Your task to perform on an android device: allow cookies in the chrome app Image 0: 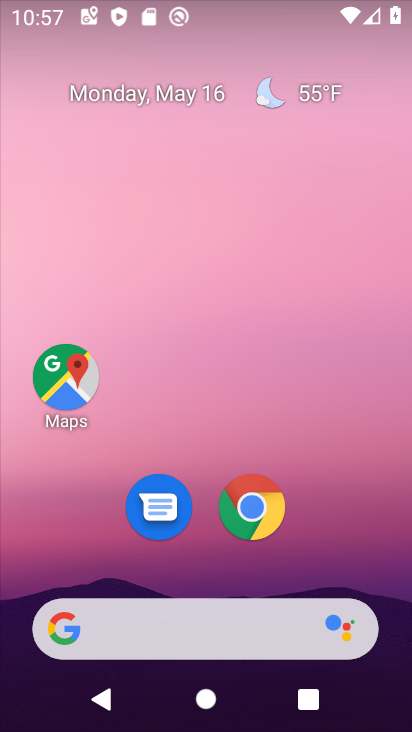
Step 0: click (264, 509)
Your task to perform on an android device: allow cookies in the chrome app Image 1: 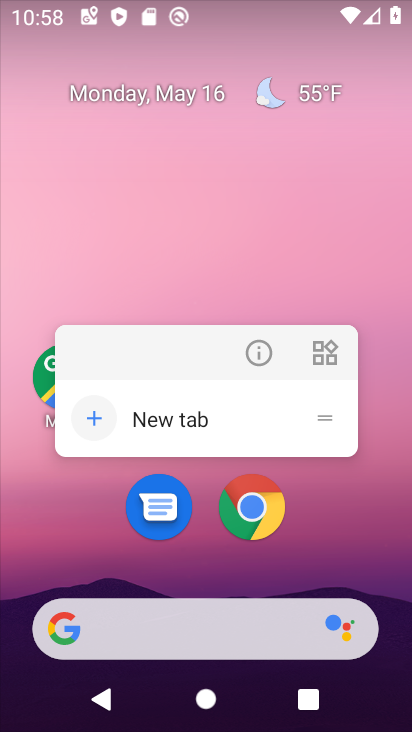
Step 1: click (249, 557)
Your task to perform on an android device: allow cookies in the chrome app Image 2: 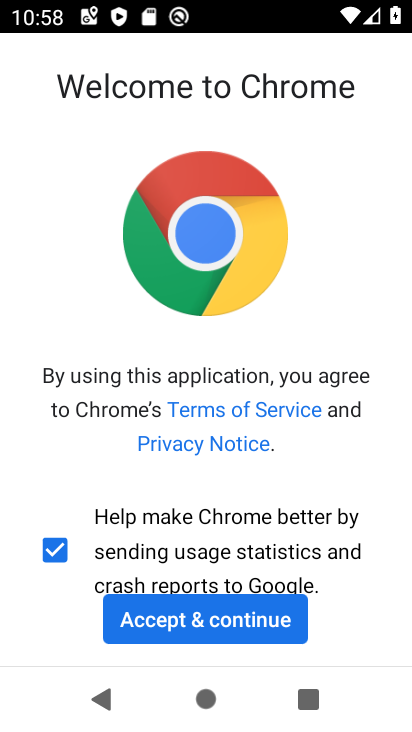
Step 2: click (249, 599)
Your task to perform on an android device: allow cookies in the chrome app Image 3: 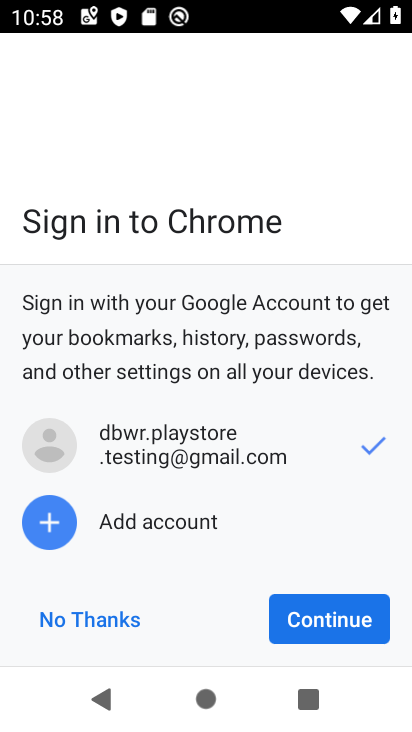
Step 3: click (300, 630)
Your task to perform on an android device: allow cookies in the chrome app Image 4: 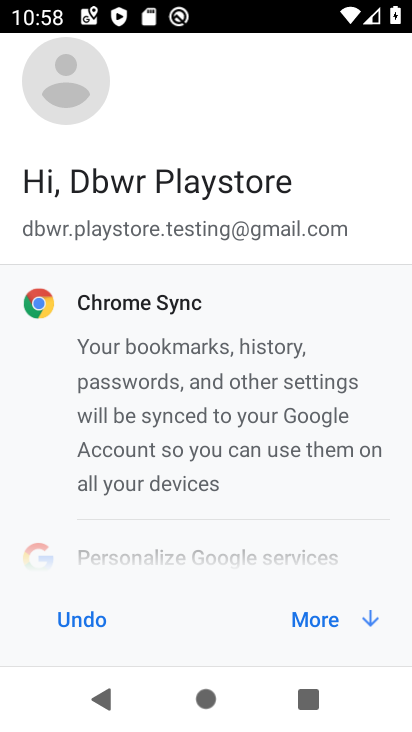
Step 4: click (320, 626)
Your task to perform on an android device: allow cookies in the chrome app Image 5: 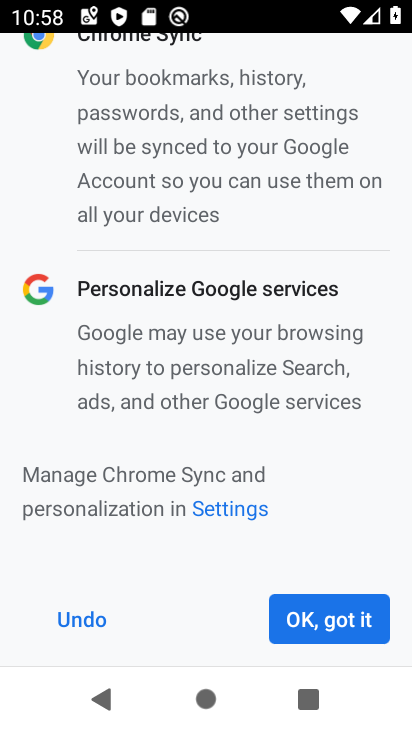
Step 5: click (319, 626)
Your task to perform on an android device: allow cookies in the chrome app Image 6: 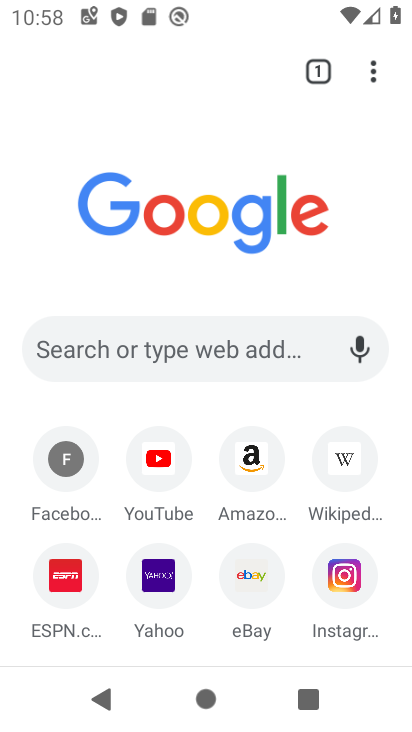
Step 6: drag from (372, 73) to (243, 517)
Your task to perform on an android device: allow cookies in the chrome app Image 7: 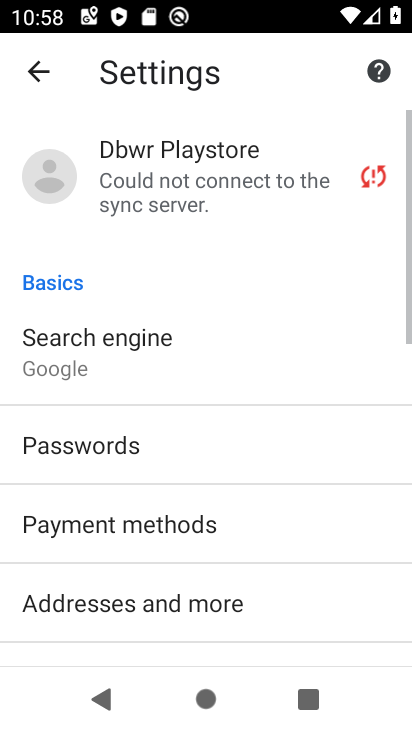
Step 7: drag from (255, 578) to (250, 248)
Your task to perform on an android device: allow cookies in the chrome app Image 8: 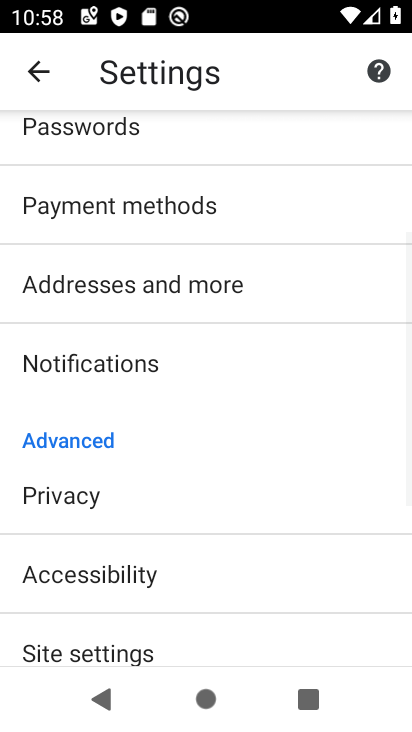
Step 8: drag from (277, 642) to (305, 276)
Your task to perform on an android device: allow cookies in the chrome app Image 9: 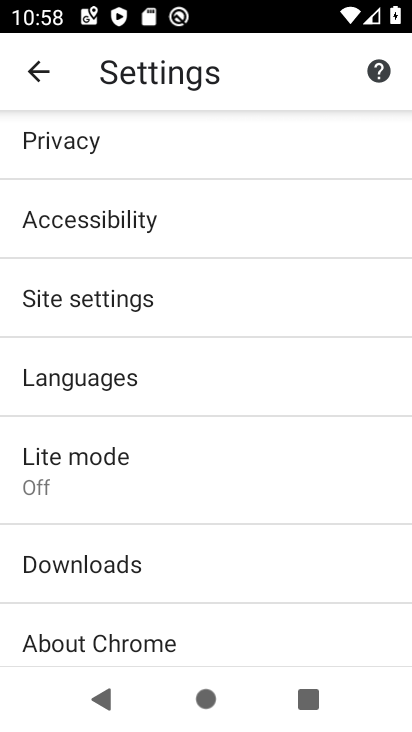
Step 9: click (122, 297)
Your task to perform on an android device: allow cookies in the chrome app Image 10: 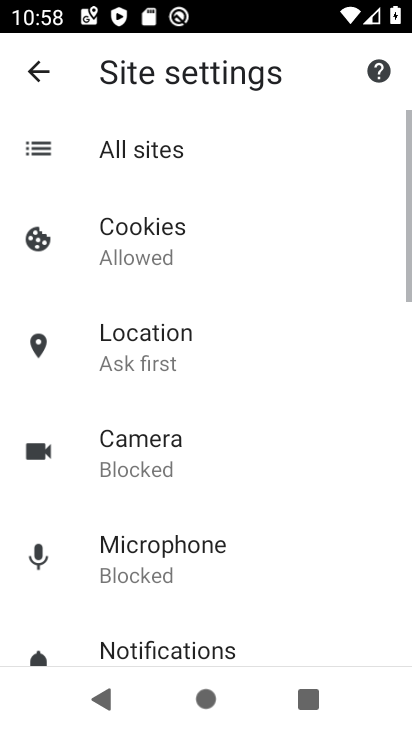
Step 10: click (170, 258)
Your task to perform on an android device: allow cookies in the chrome app Image 11: 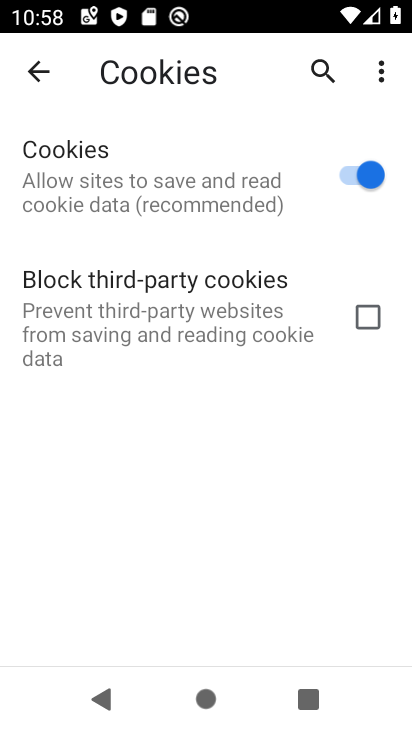
Step 11: task complete